Your task to perform on an android device: snooze an email in the gmail app Image 0: 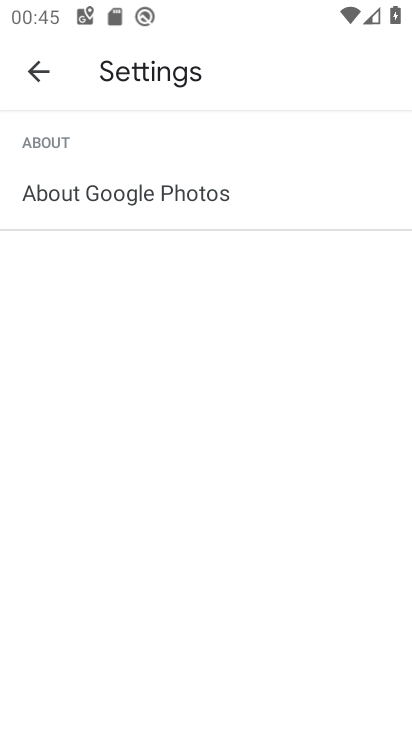
Step 0: click (29, 63)
Your task to perform on an android device: snooze an email in the gmail app Image 1: 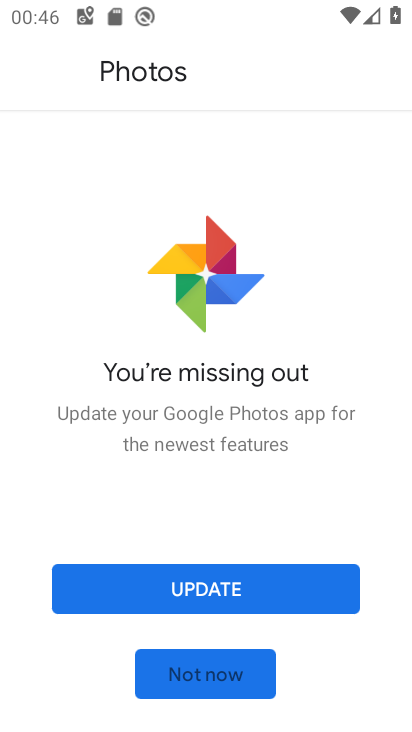
Step 1: click (231, 663)
Your task to perform on an android device: snooze an email in the gmail app Image 2: 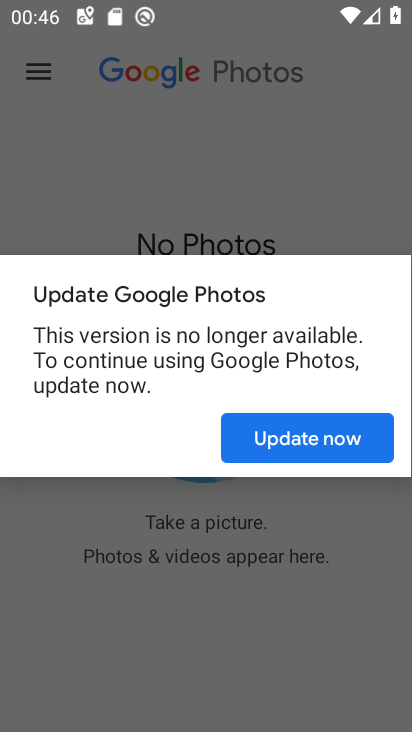
Step 2: click (312, 425)
Your task to perform on an android device: snooze an email in the gmail app Image 3: 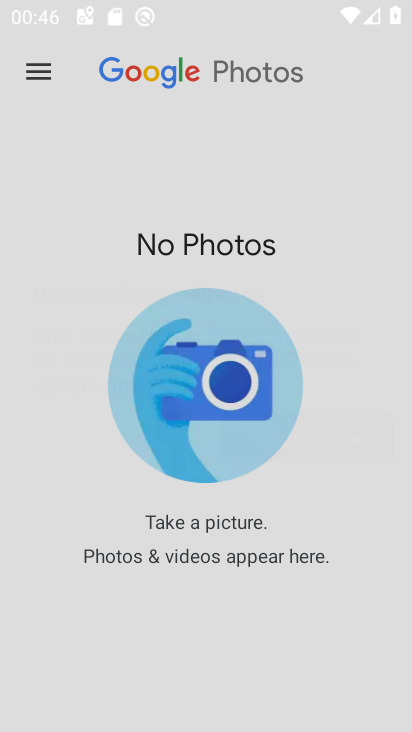
Step 3: click (297, 439)
Your task to perform on an android device: snooze an email in the gmail app Image 4: 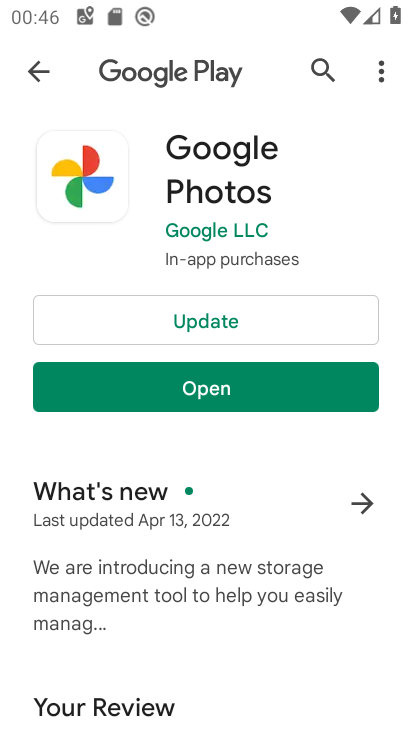
Step 4: click (35, 74)
Your task to perform on an android device: snooze an email in the gmail app Image 5: 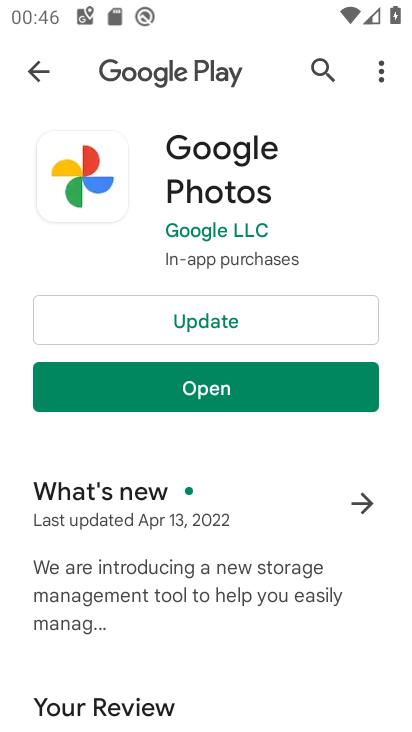
Step 5: click (25, 68)
Your task to perform on an android device: snooze an email in the gmail app Image 6: 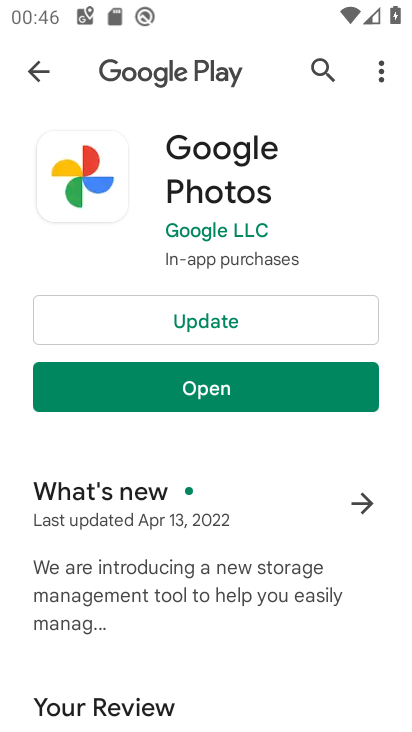
Step 6: click (33, 63)
Your task to perform on an android device: snooze an email in the gmail app Image 7: 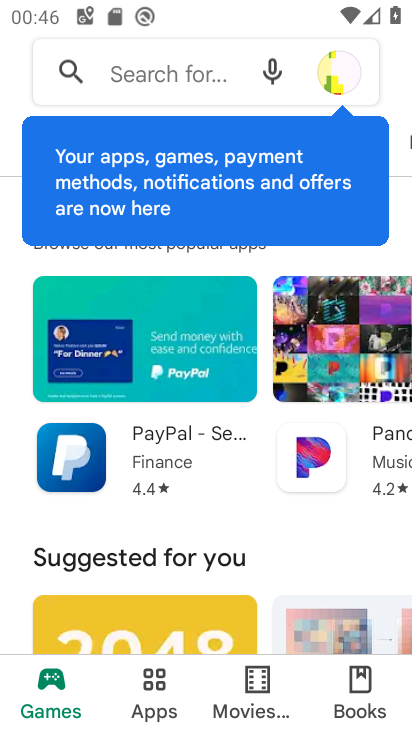
Step 7: press home button
Your task to perform on an android device: snooze an email in the gmail app Image 8: 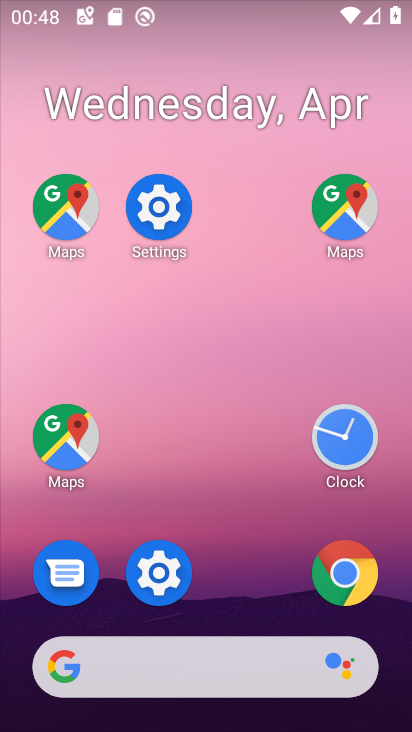
Step 8: drag from (153, 490) to (14, 113)
Your task to perform on an android device: snooze an email in the gmail app Image 9: 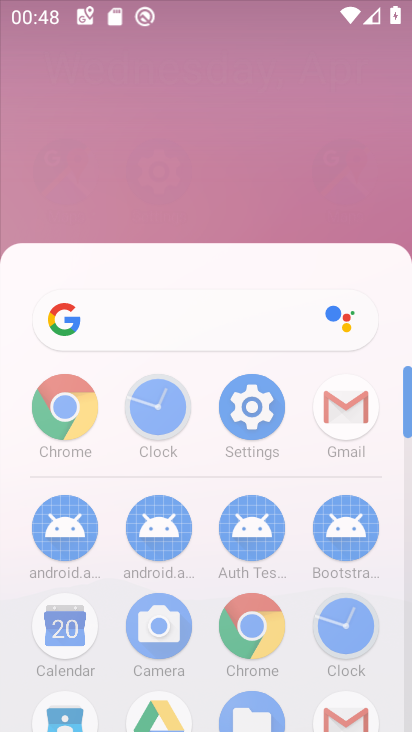
Step 9: drag from (154, 379) to (34, 14)
Your task to perform on an android device: snooze an email in the gmail app Image 10: 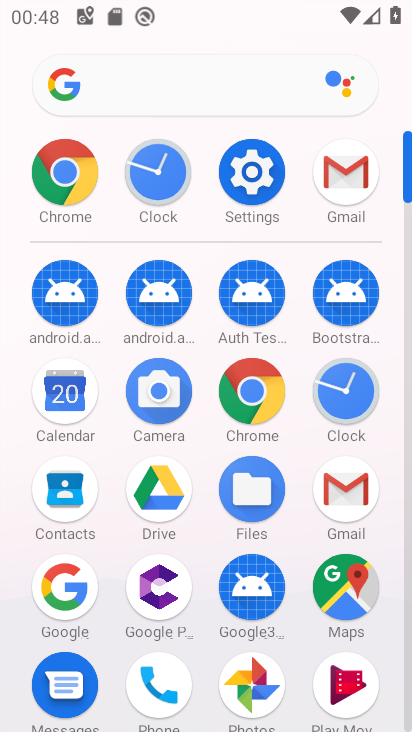
Step 10: click (343, 495)
Your task to perform on an android device: snooze an email in the gmail app Image 11: 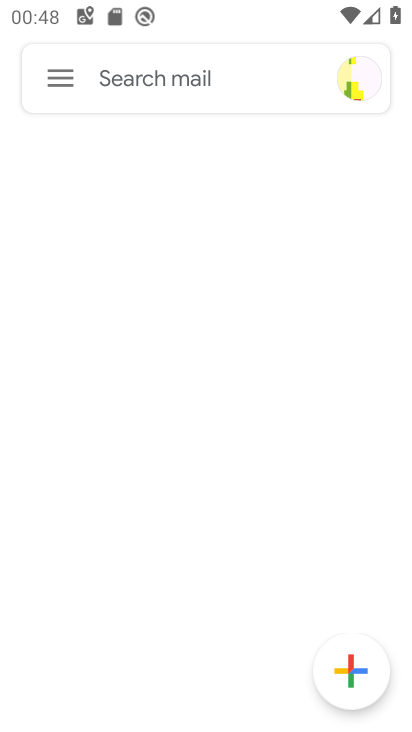
Step 11: click (63, 75)
Your task to perform on an android device: snooze an email in the gmail app Image 12: 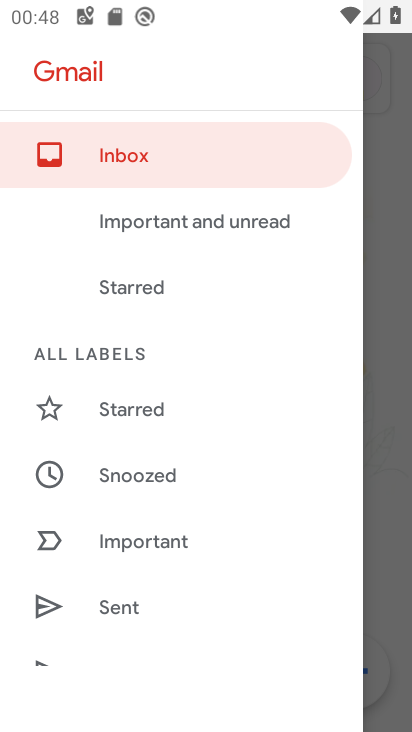
Step 12: click (125, 480)
Your task to perform on an android device: snooze an email in the gmail app Image 13: 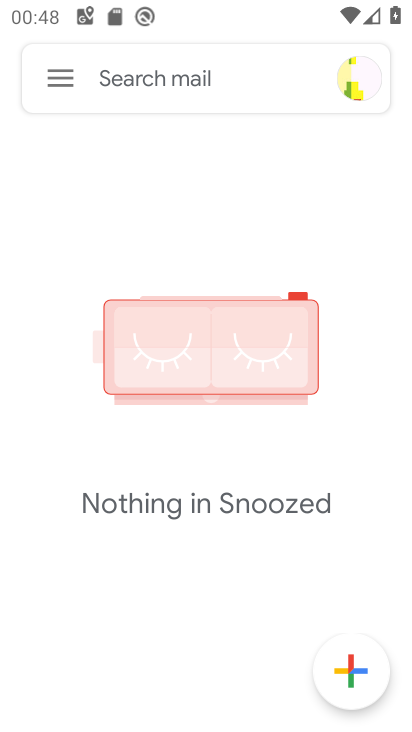
Step 13: task complete